Your task to perform on an android device: Go to sound settings Image 0: 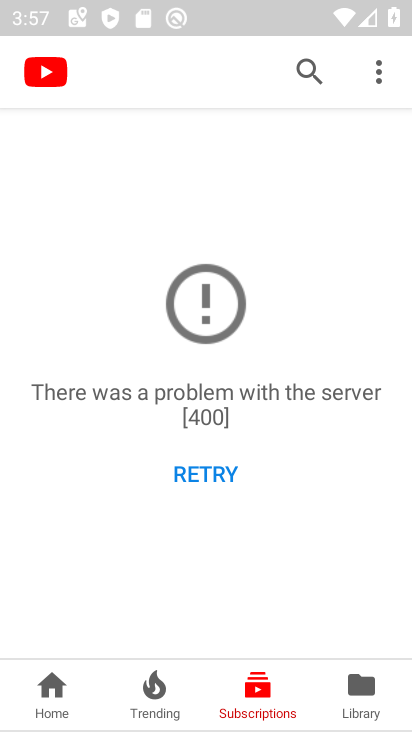
Step 0: press home button
Your task to perform on an android device: Go to sound settings Image 1: 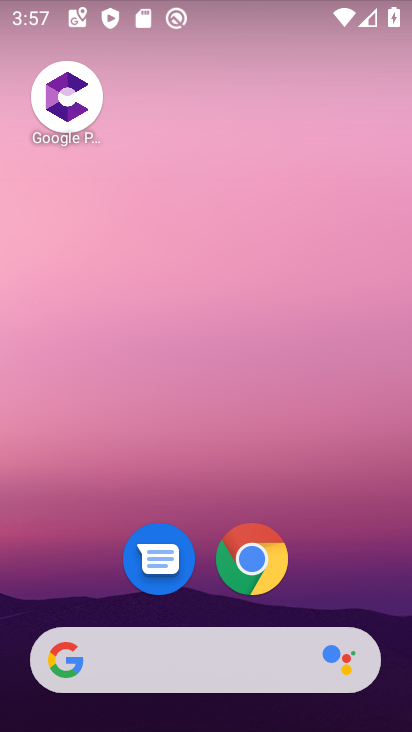
Step 1: drag from (319, 580) to (328, 95)
Your task to perform on an android device: Go to sound settings Image 2: 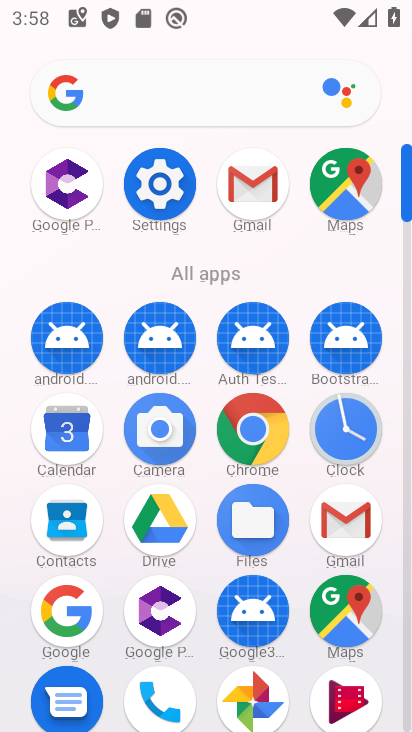
Step 2: click (166, 182)
Your task to perform on an android device: Go to sound settings Image 3: 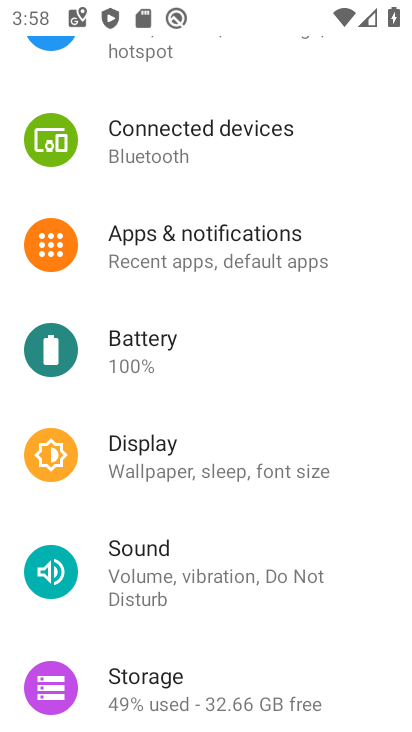
Step 3: click (150, 559)
Your task to perform on an android device: Go to sound settings Image 4: 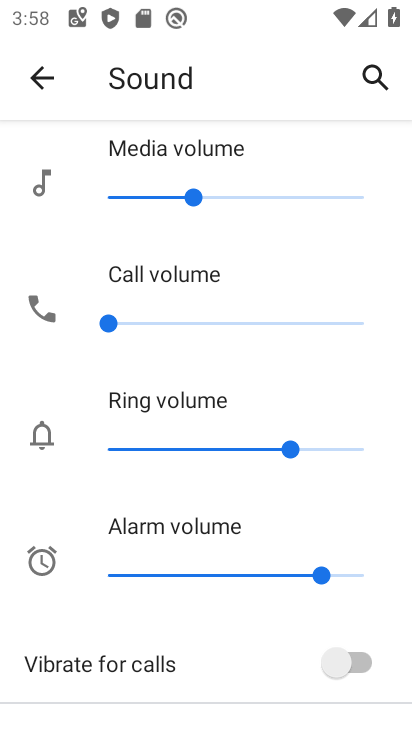
Step 4: task complete